Your task to perform on an android device: Open location settings Image 0: 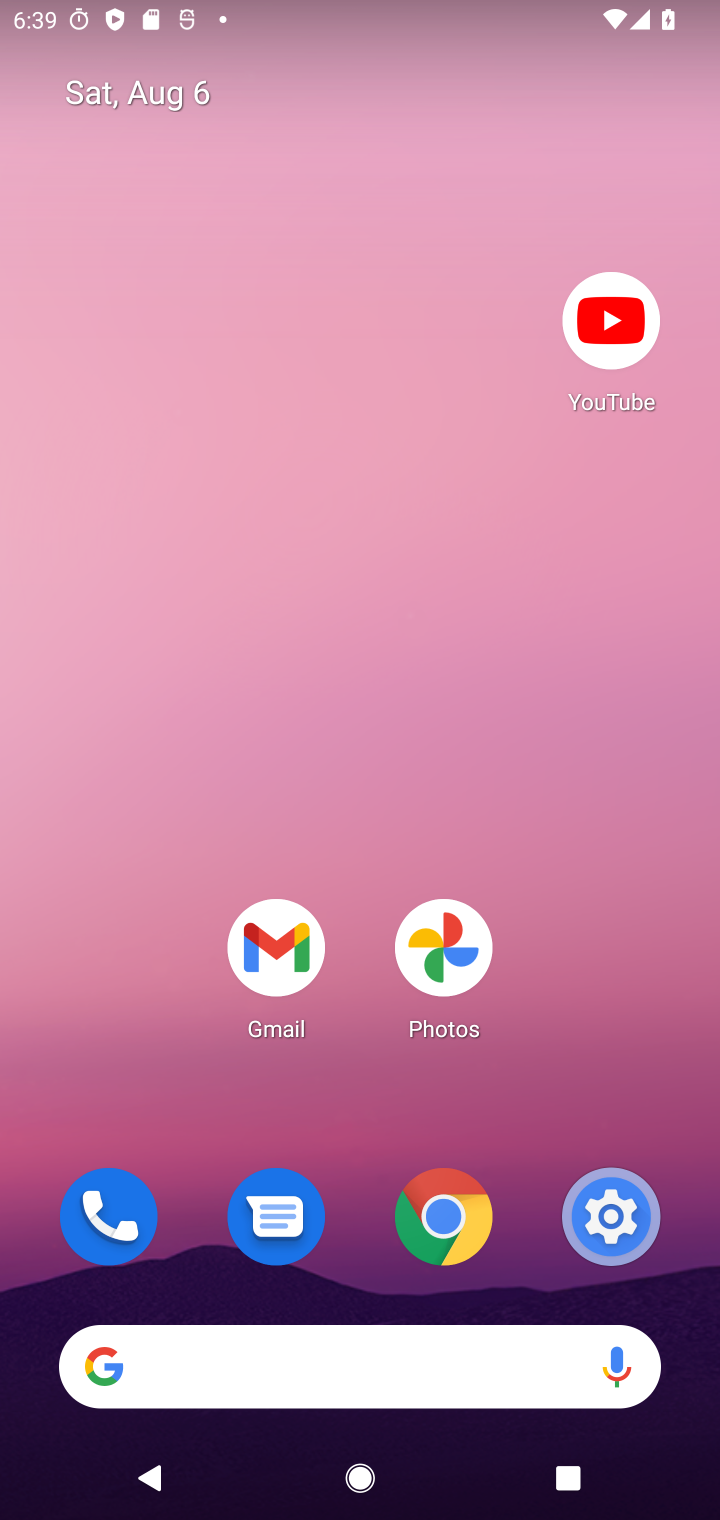
Step 0: drag from (536, 584) to (542, 47)
Your task to perform on an android device: Open location settings Image 1: 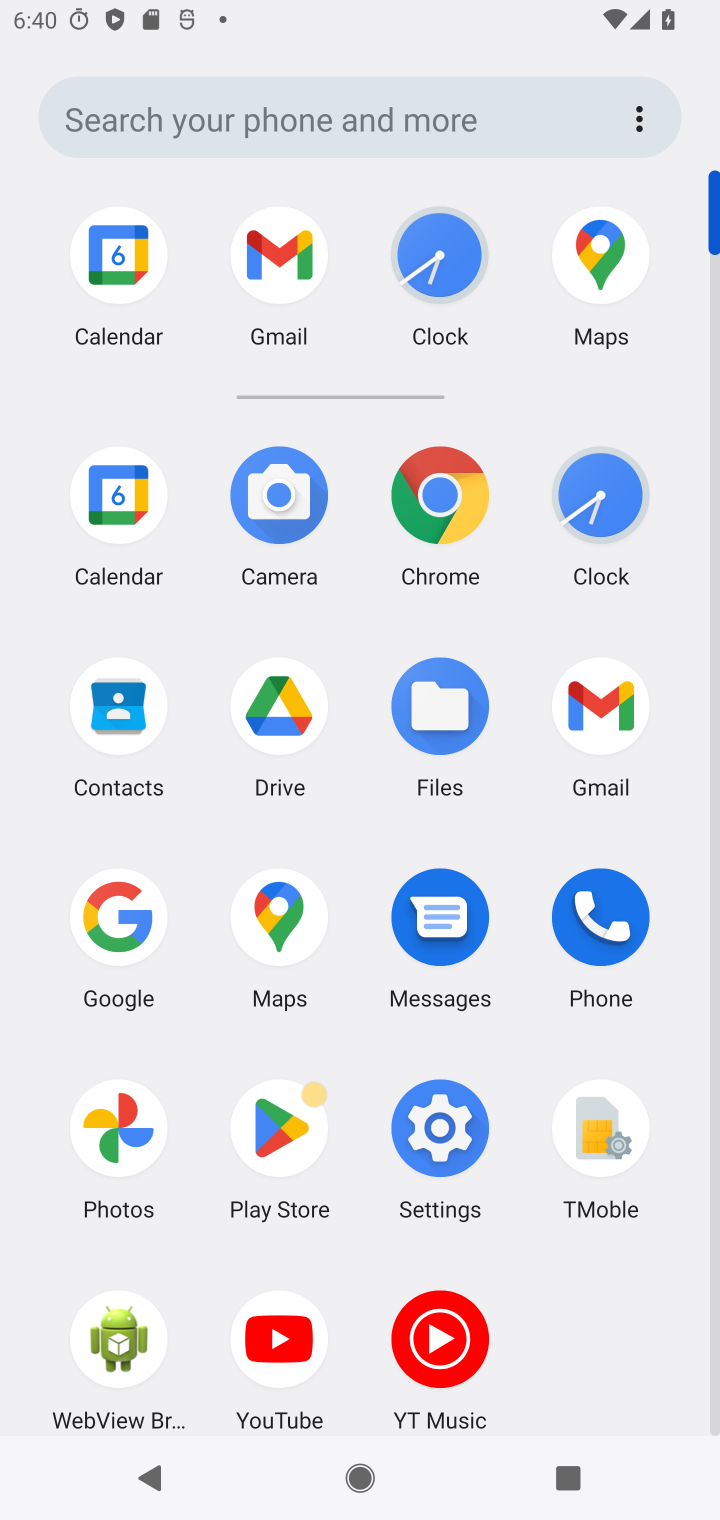
Step 1: click (467, 1137)
Your task to perform on an android device: Open location settings Image 2: 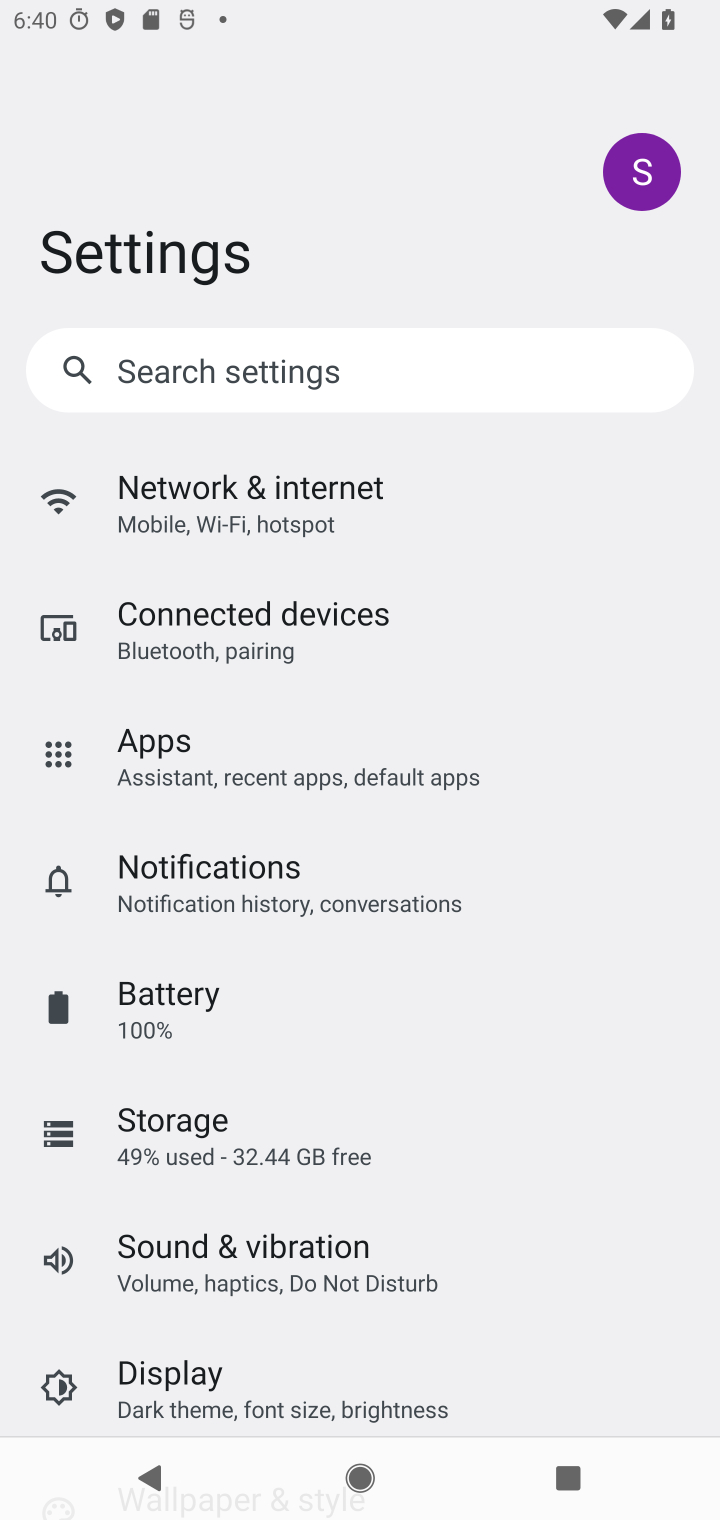
Step 2: drag from (464, 1081) to (478, 600)
Your task to perform on an android device: Open location settings Image 3: 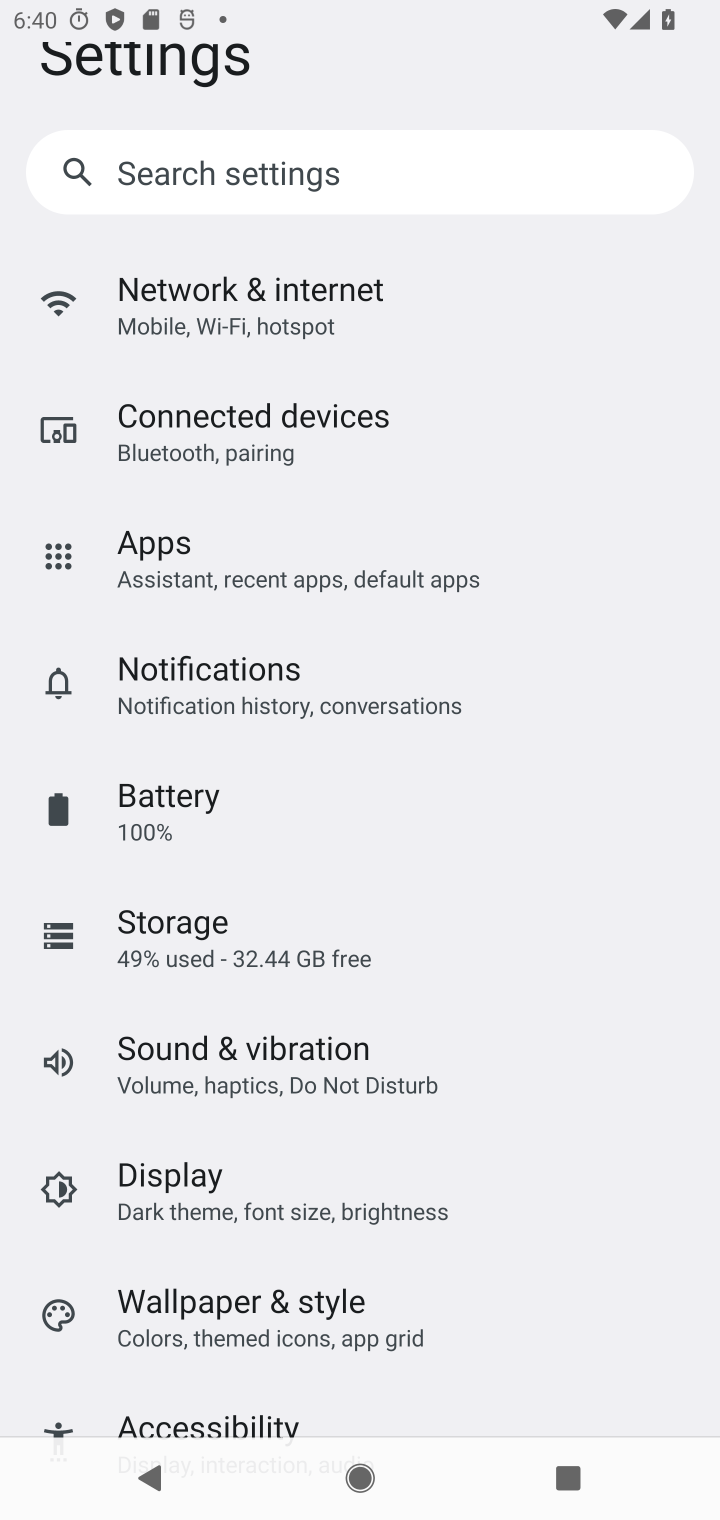
Step 3: drag from (424, 1265) to (444, 756)
Your task to perform on an android device: Open location settings Image 4: 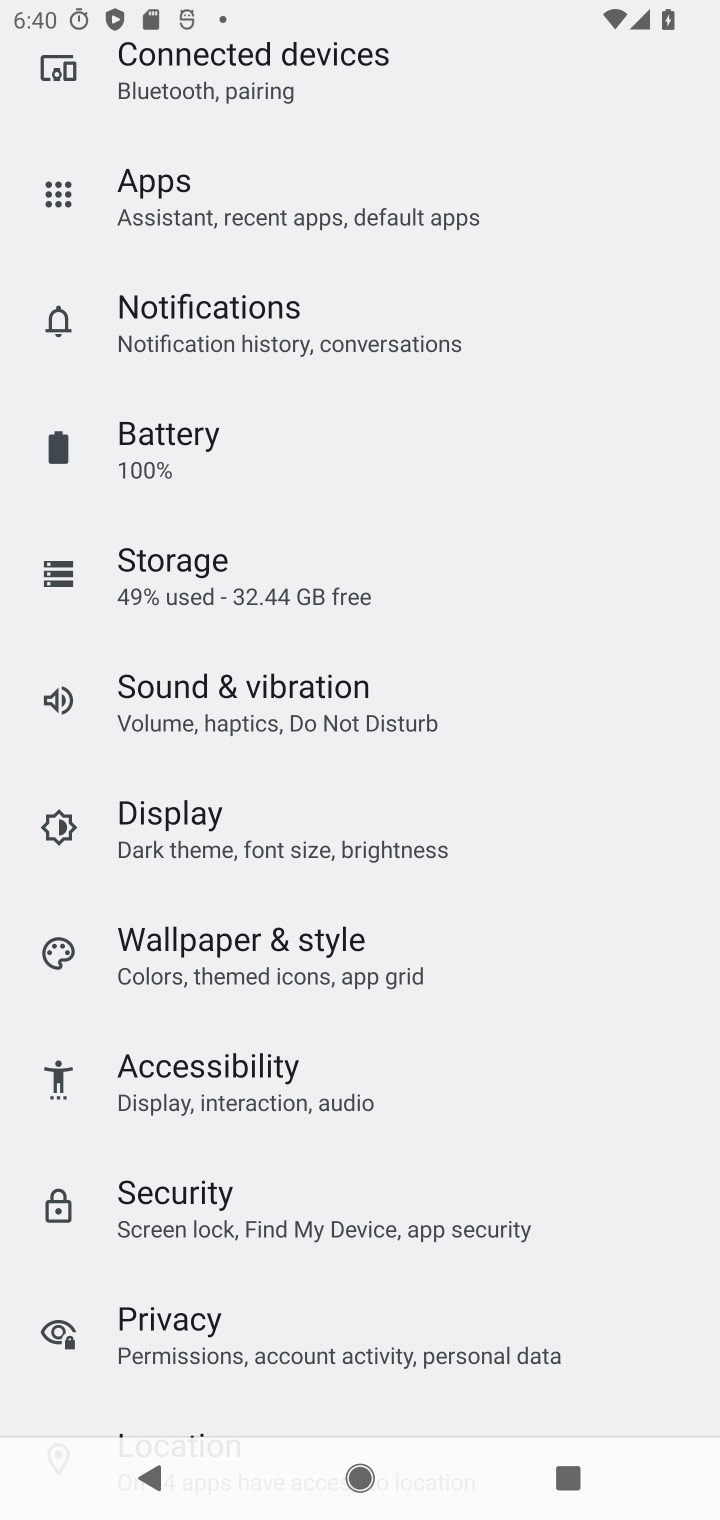
Step 4: drag from (465, 1195) to (550, 622)
Your task to perform on an android device: Open location settings Image 5: 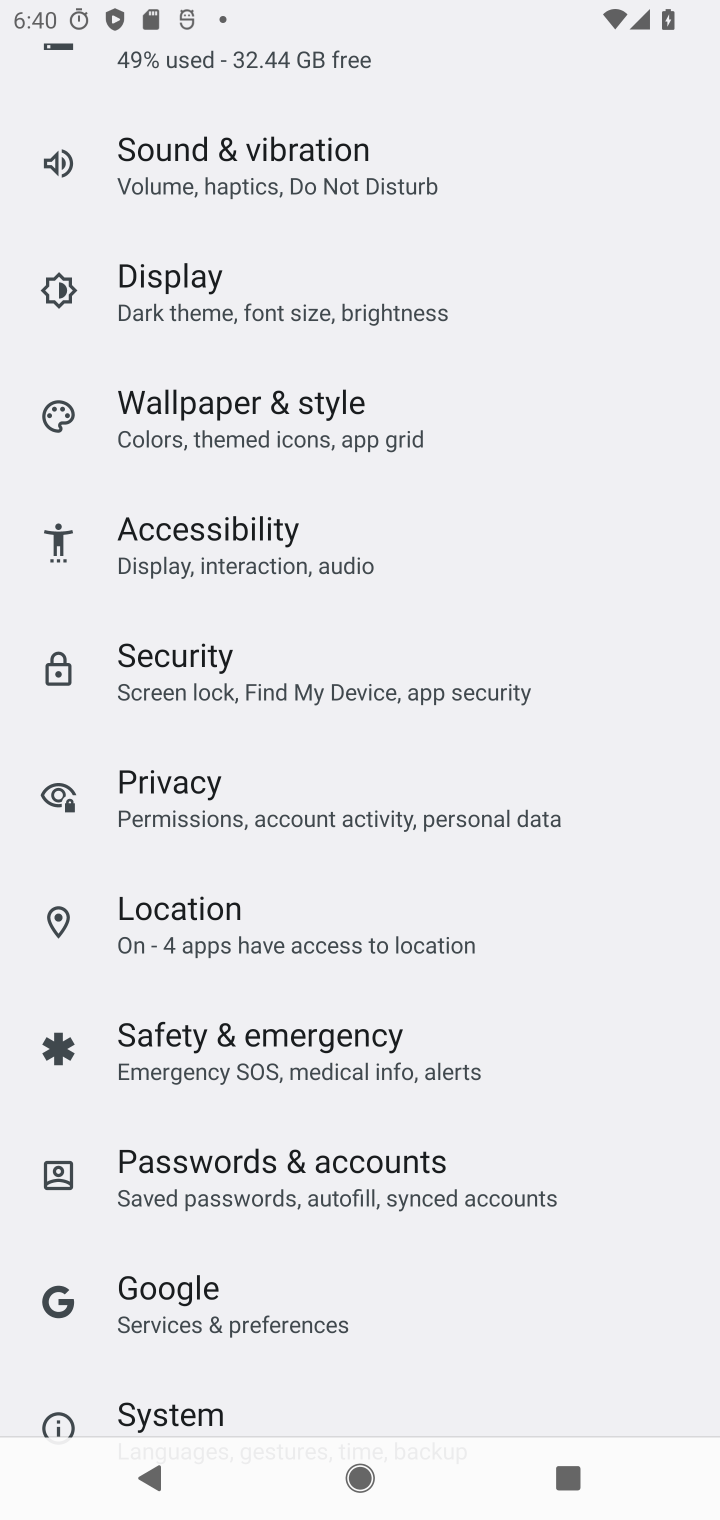
Step 5: click (286, 991)
Your task to perform on an android device: Open location settings Image 6: 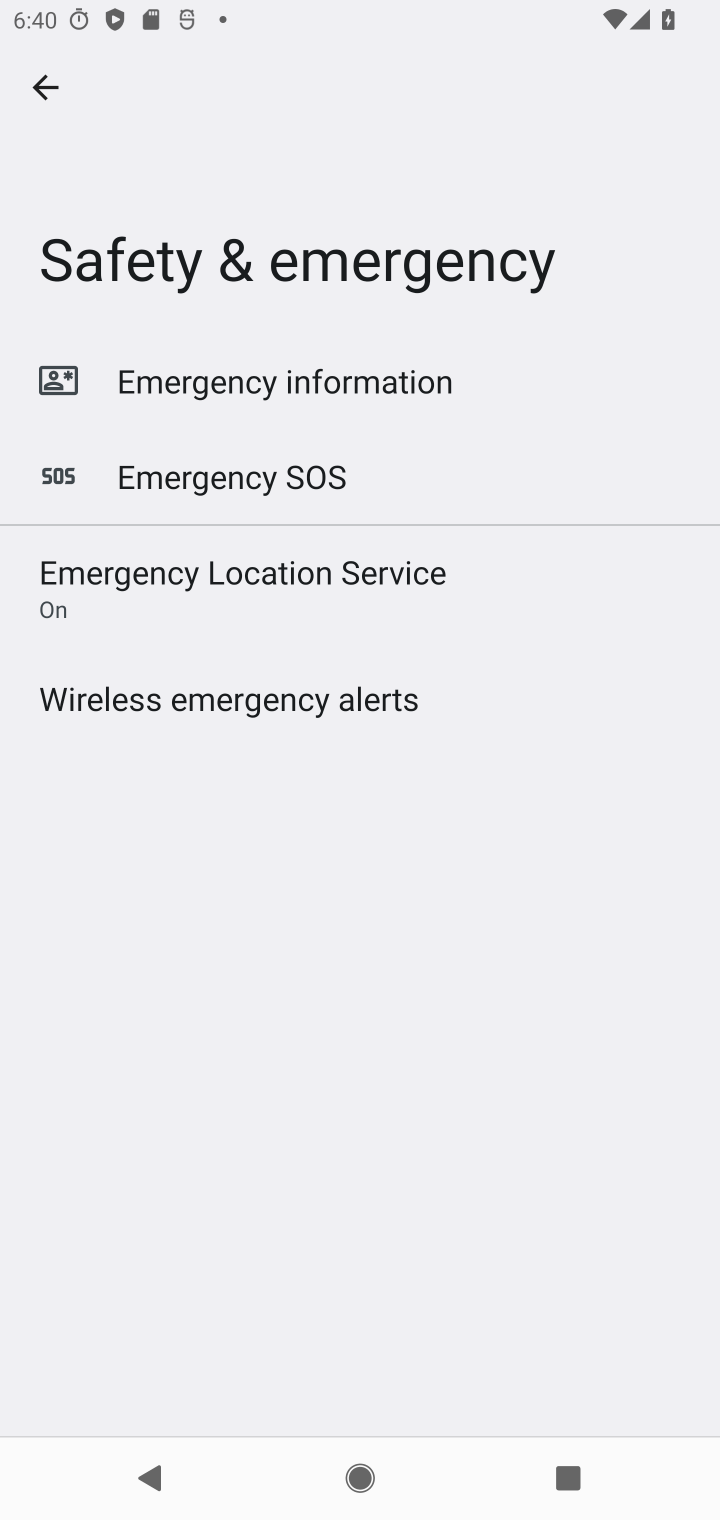
Step 6: click (56, 56)
Your task to perform on an android device: Open location settings Image 7: 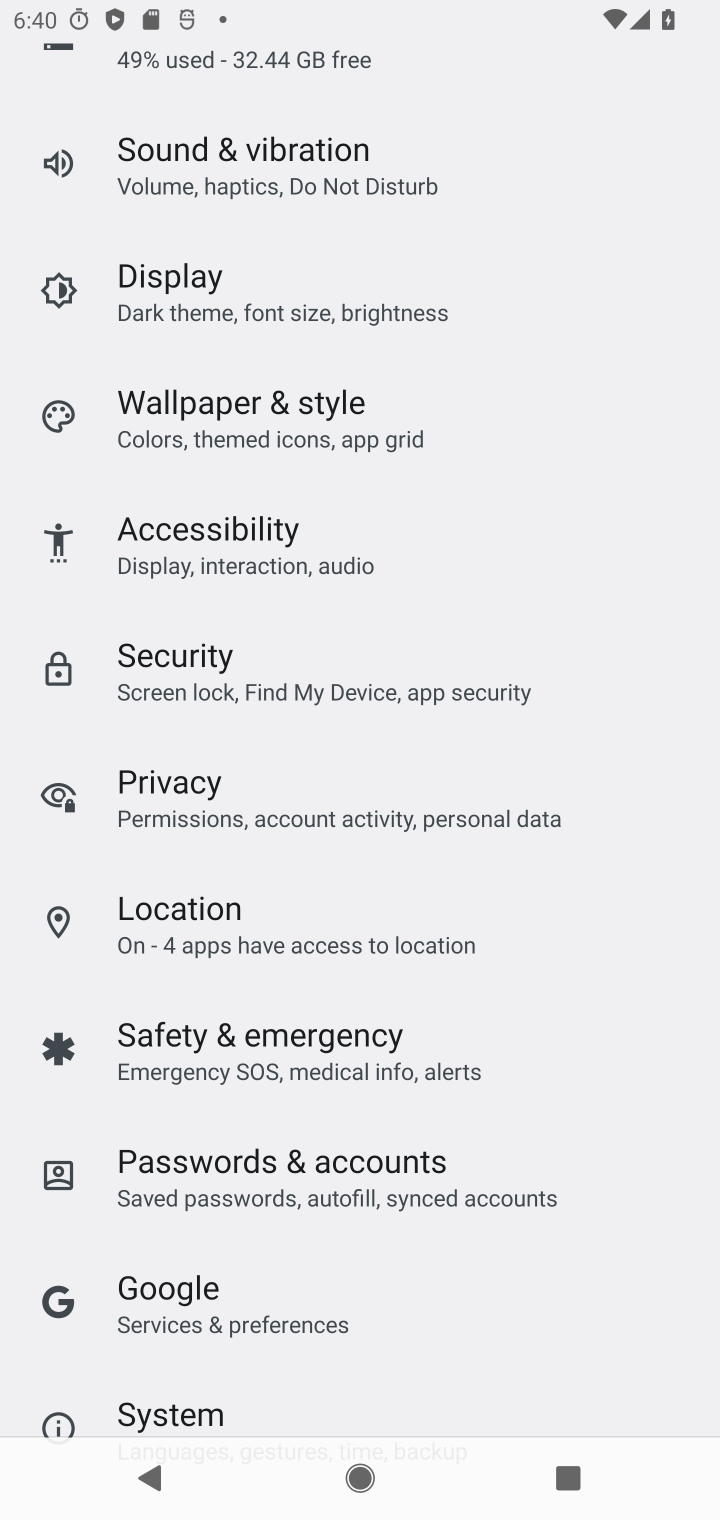
Step 7: click (188, 912)
Your task to perform on an android device: Open location settings Image 8: 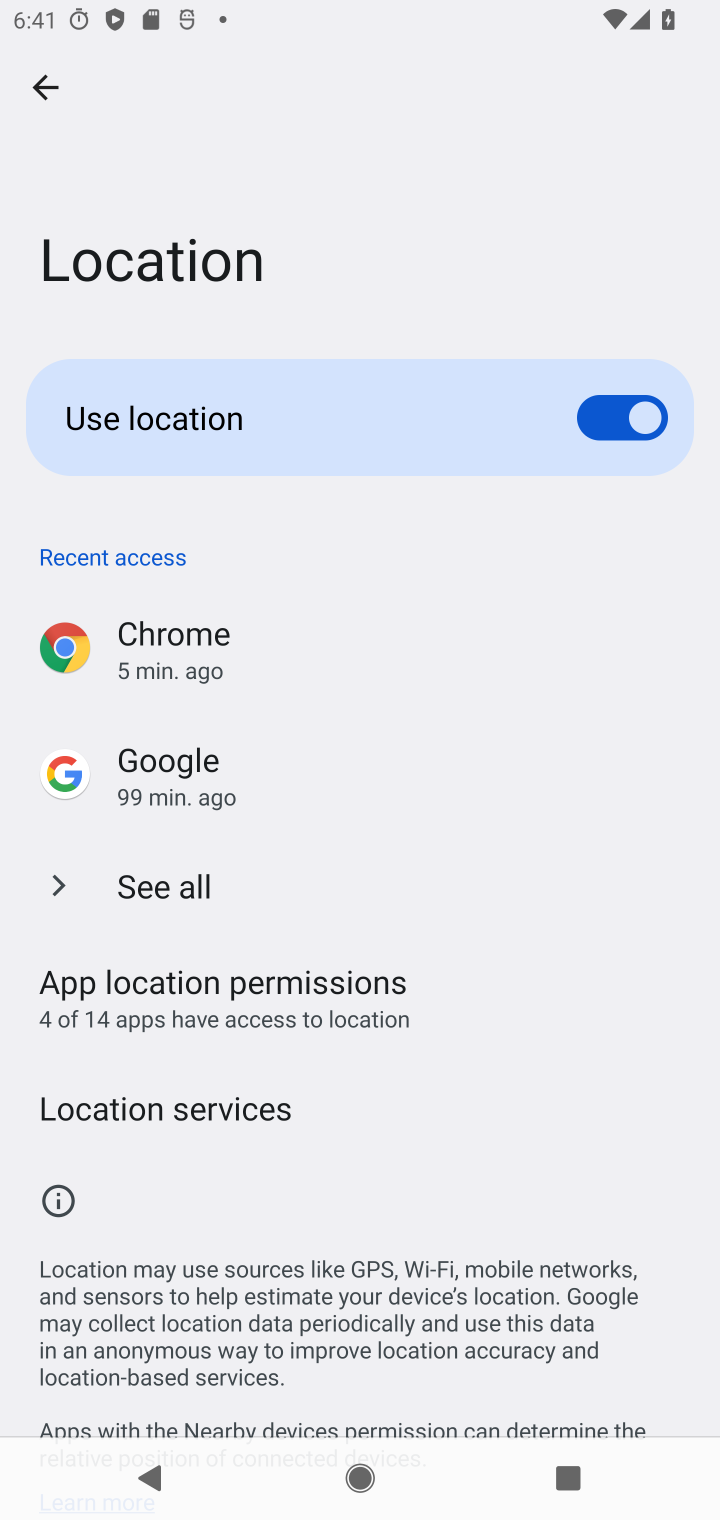
Step 8: task complete